Your task to perform on an android device: toggle sleep mode Image 0: 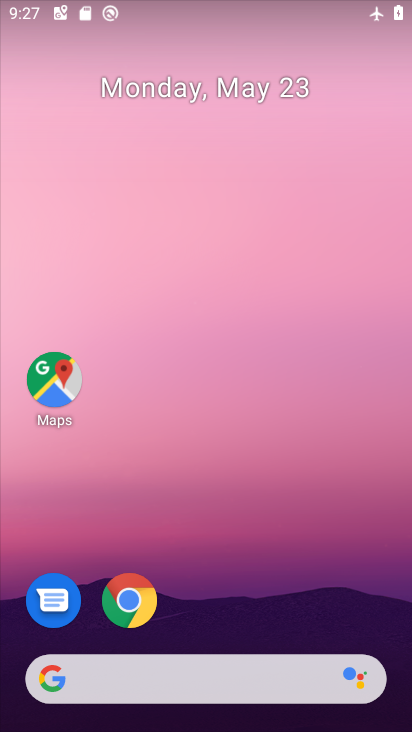
Step 0: drag from (240, 723) to (256, 164)
Your task to perform on an android device: toggle sleep mode Image 1: 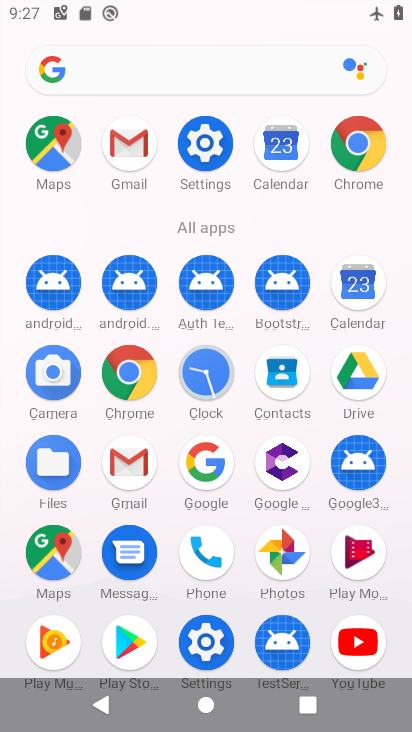
Step 1: click (204, 146)
Your task to perform on an android device: toggle sleep mode Image 2: 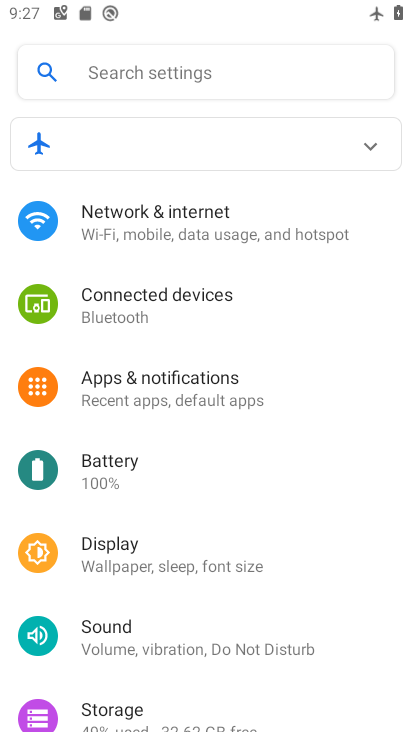
Step 2: drag from (148, 704) to (150, 378)
Your task to perform on an android device: toggle sleep mode Image 3: 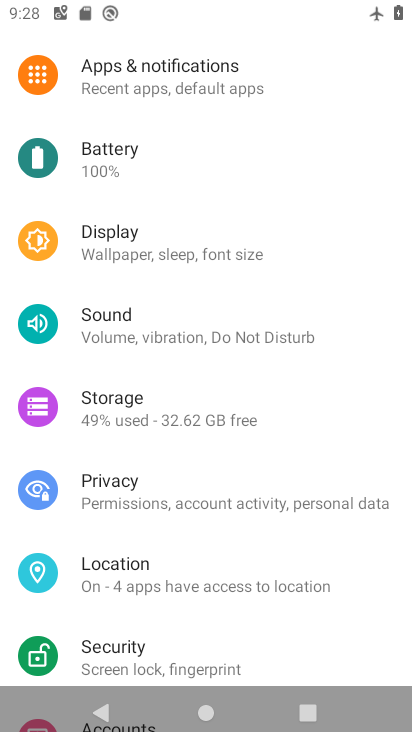
Step 3: drag from (208, 653) to (210, 281)
Your task to perform on an android device: toggle sleep mode Image 4: 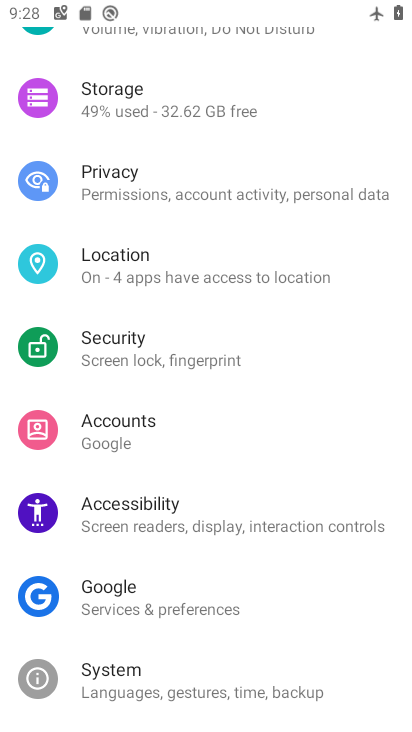
Step 4: drag from (237, 671) to (243, 358)
Your task to perform on an android device: toggle sleep mode Image 5: 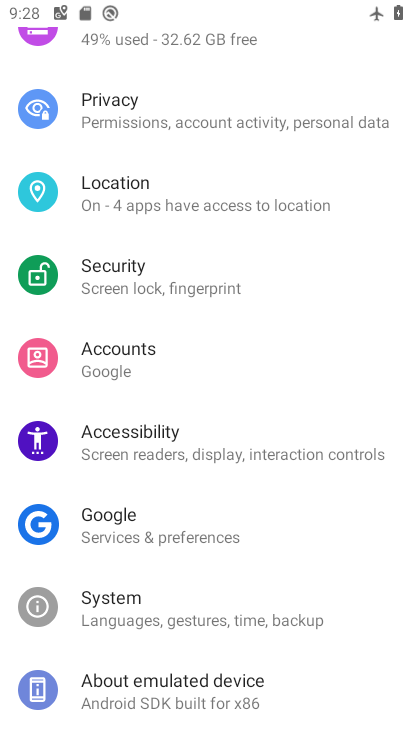
Step 5: drag from (217, 679) to (204, 356)
Your task to perform on an android device: toggle sleep mode Image 6: 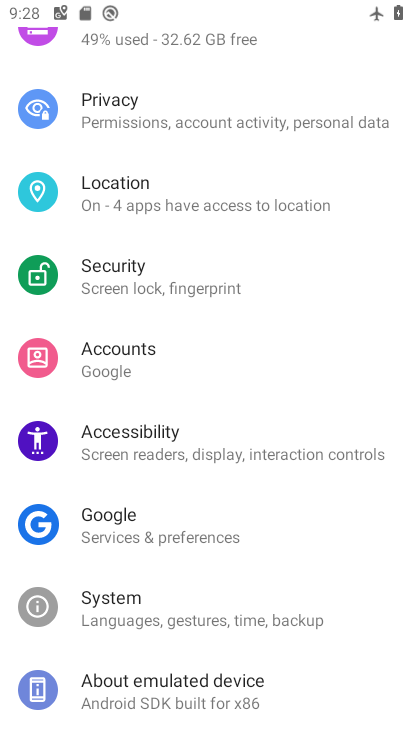
Step 6: drag from (216, 153) to (230, 551)
Your task to perform on an android device: toggle sleep mode Image 7: 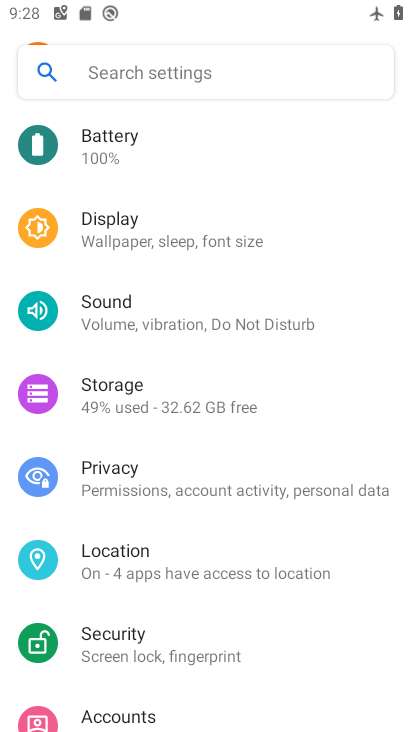
Step 7: drag from (189, 175) to (204, 626)
Your task to perform on an android device: toggle sleep mode Image 8: 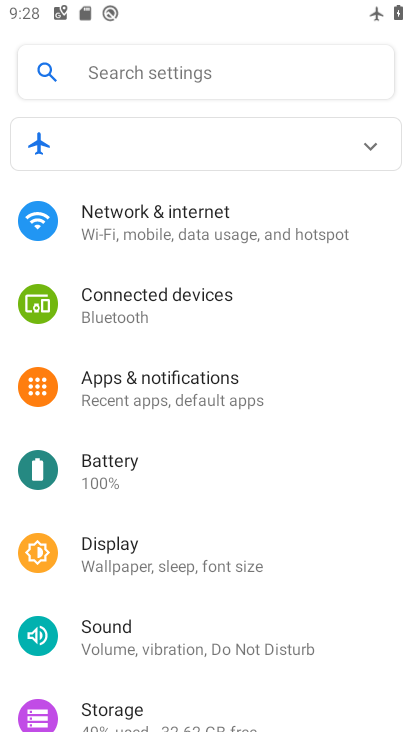
Step 8: drag from (126, 659) to (129, 428)
Your task to perform on an android device: toggle sleep mode Image 9: 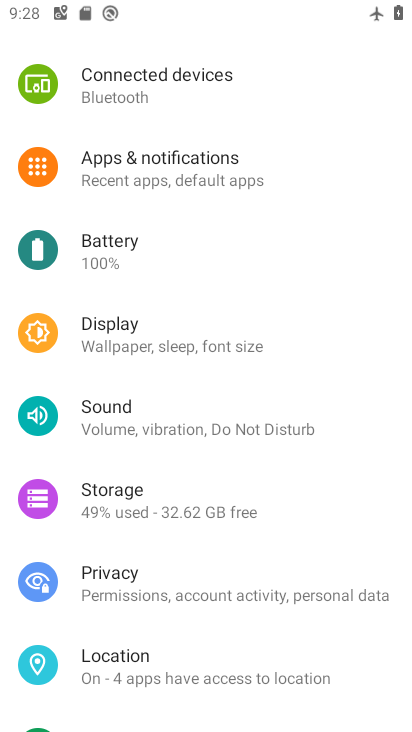
Step 9: click (145, 340)
Your task to perform on an android device: toggle sleep mode Image 10: 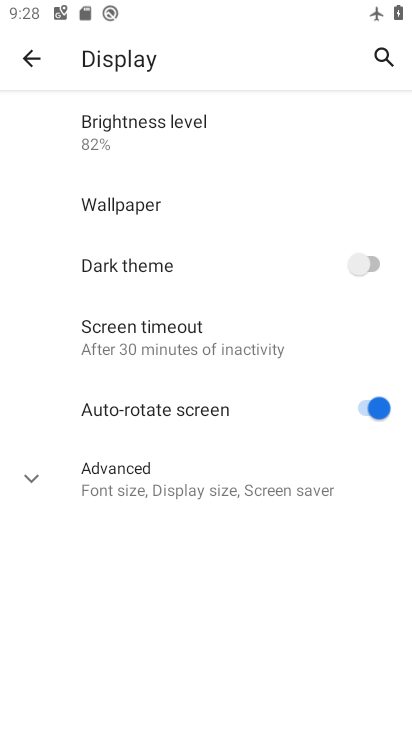
Step 10: task complete